Your task to perform on an android device: turn off notifications in google photos Image 0: 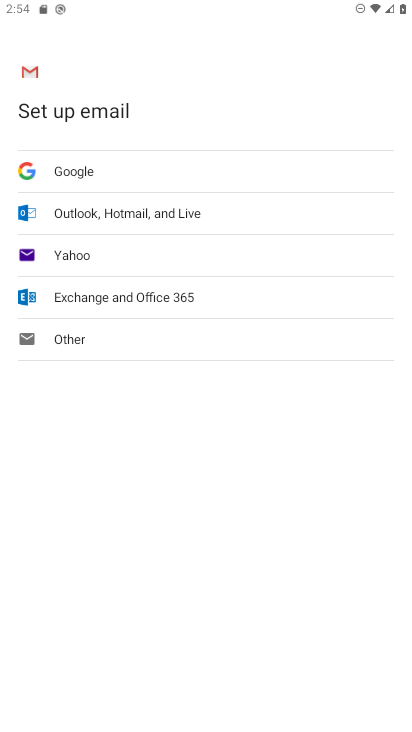
Step 0: press home button
Your task to perform on an android device: turn off notifications in google photos Image 1: 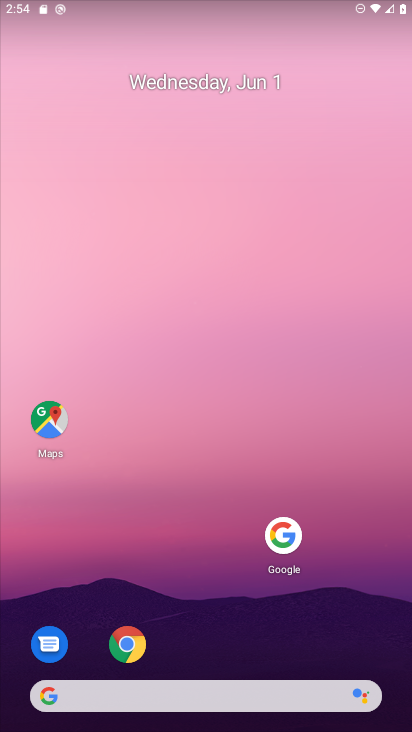
Step 1: drag from (241, 694) to (276, 205)
Your task to perform on an android device: turn off notifications in google photos Image 2: 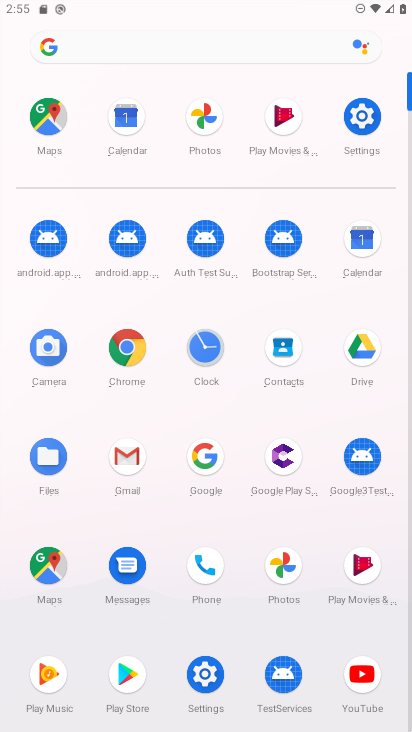
Step 2: click (285, 566)
Your task to perform on an android device: turn off notifications in google photos Image 3: 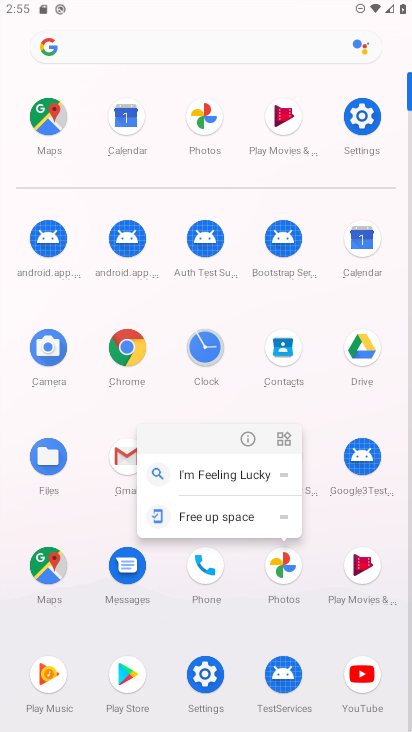
Step 3: click (287, 568)
Your task to perform on an android device: turn off notifications in google photos Image 4: 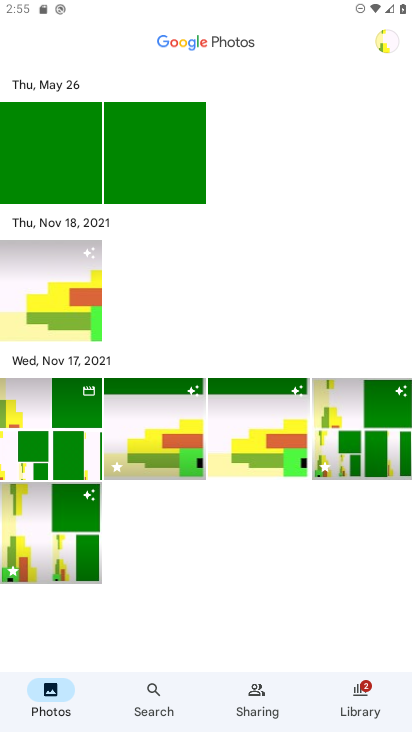
Step 4: click (390, 28)
Your task to perform on an android device: turn off notifications in google photos Image 5: 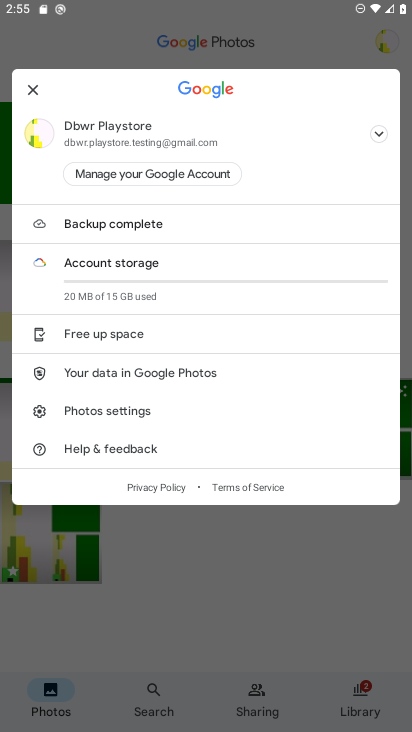
Step 5: click (105, 422)
Your task to perform on an android device: turn off notifications in google photos Image 6: 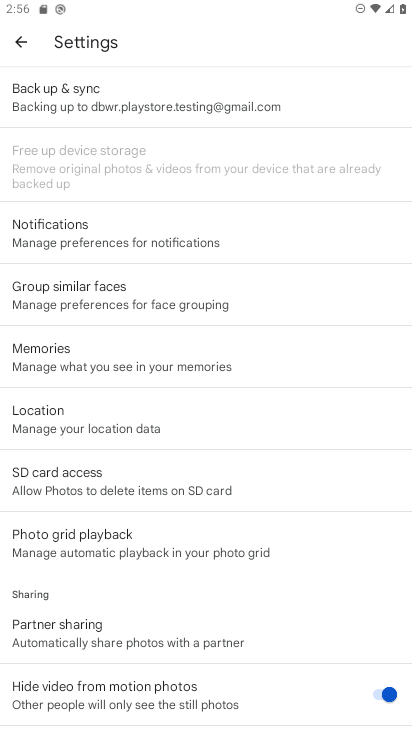
Step 6: click (137, 228)
Your task to perform on an android device: turn off notifications in google photos Image 7: 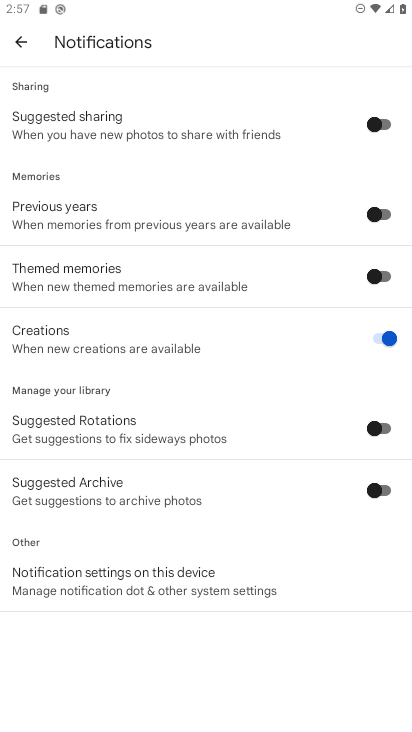
Step 7: click (174, 574)
Your task to perform on an android device: turn off notifications in google photos Image 8: 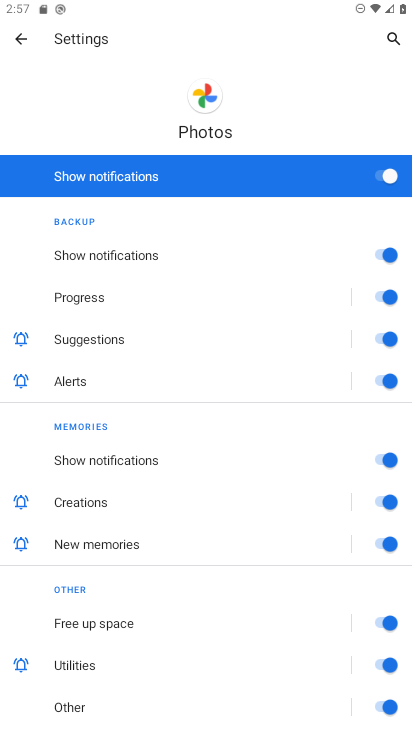
Step 8: click (383, 172)
Your task to perform on an android device: turn off notifications in google photos Image 9: 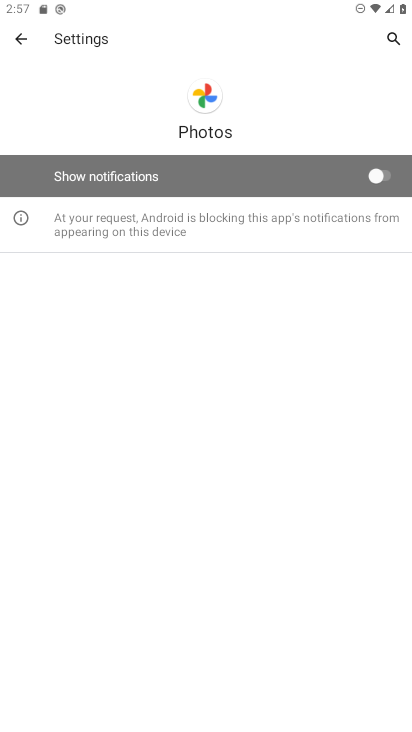
Step 9: task complete